Your task to perform on an android device: Go to CNN.com Image 0: 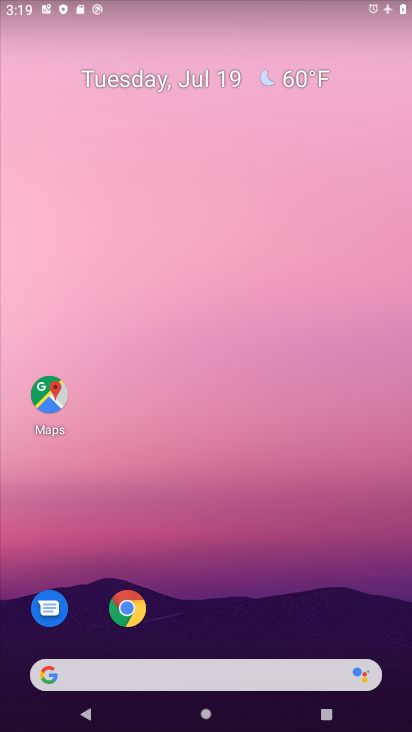
Step 0: drag from (250, 524) to (233, 55)
Your task to perform on an android device: Go to CNN.com Image 1: 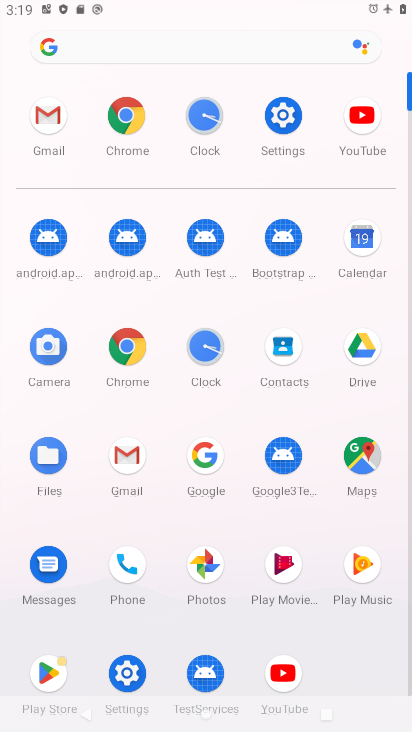
Step 1: click (144, 123)
Your task to perform on an android device: Go to CNN.com Image 2: 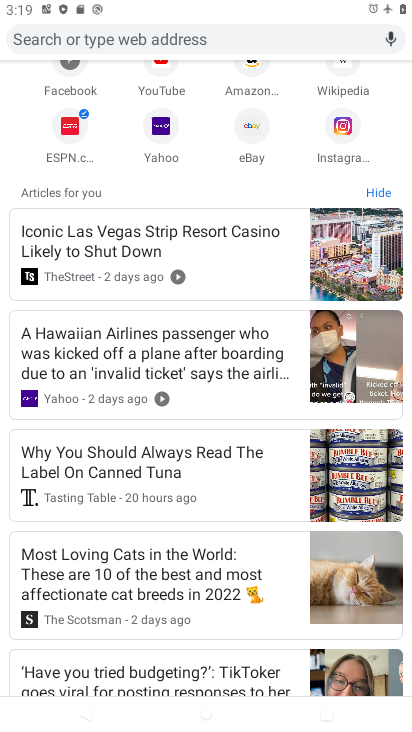
Step 2: drag from (99, 233) to (173, 694)
Your task to perform on an android device: Go to CNN.com Image 3: 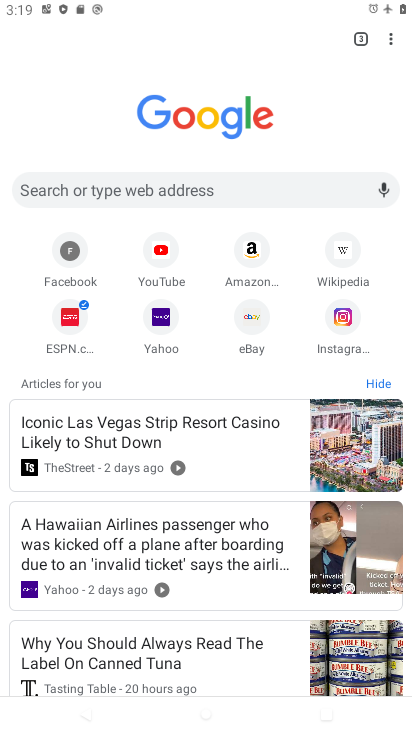
Step 3: click (140, 176)
Your task to perform on an android device: Go to CNN.com Image 4: 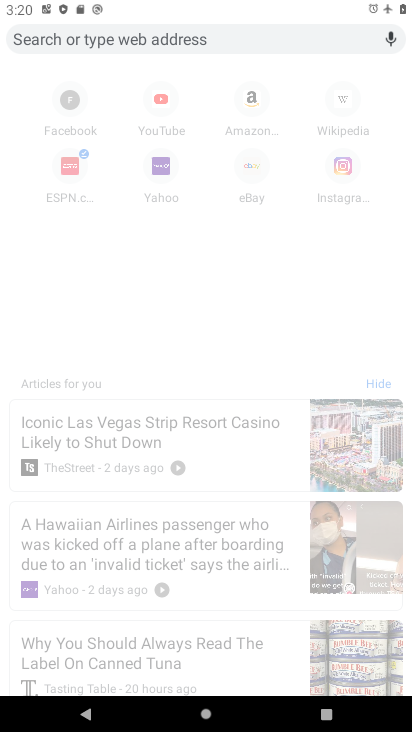
Step 4: type "CNN.com"
Your task to perform on an android device: Go to CNN.com Image 5: 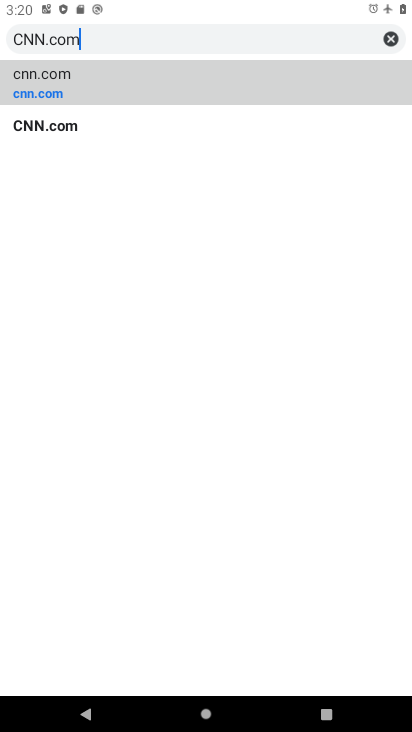
Step 5: press enter
Your task to perform on an android device: Go to CNN.com Image 6: 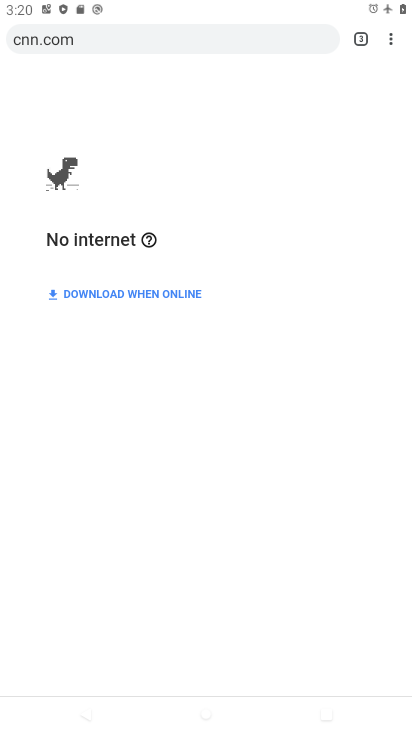
Step 6: task complete